Your task to perform on an android device: toggle improve location accuracy Image 0: 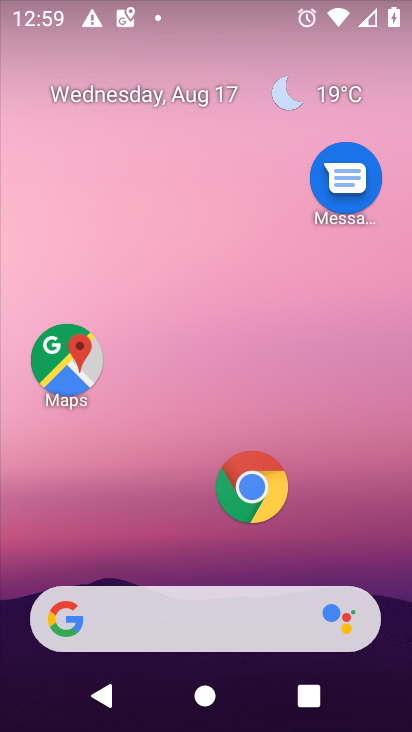
Step 0: drag from (169, 589) to (237, 33)
Your task to perform on an android device: toggle improve location accuracy Image 1: 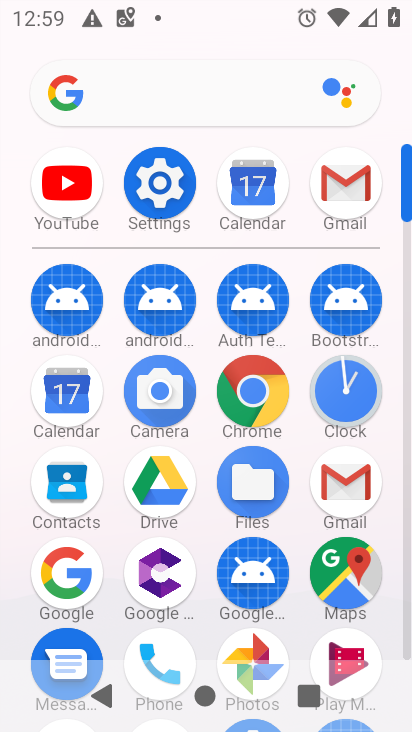
Step 1: click (158, 187)
Your task to perform on an android device: toggle improve location accuracy Image 2: 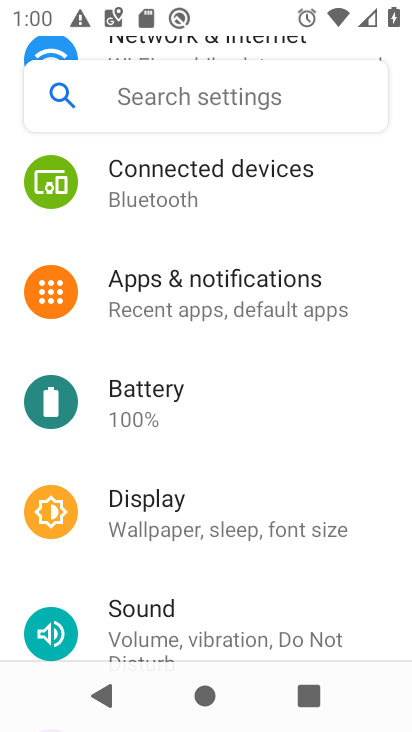
Step 2: drag from (206, 620) to (284, 125)
Your task to perform on an android device: toggle improve location accuracy Image 3: 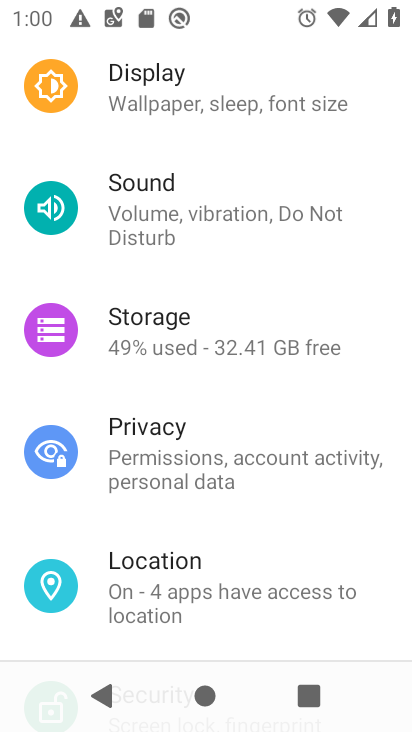
Step 3: click (170, 560)
Your task to perform on an android device: toggle improve location accuracy Image 4: 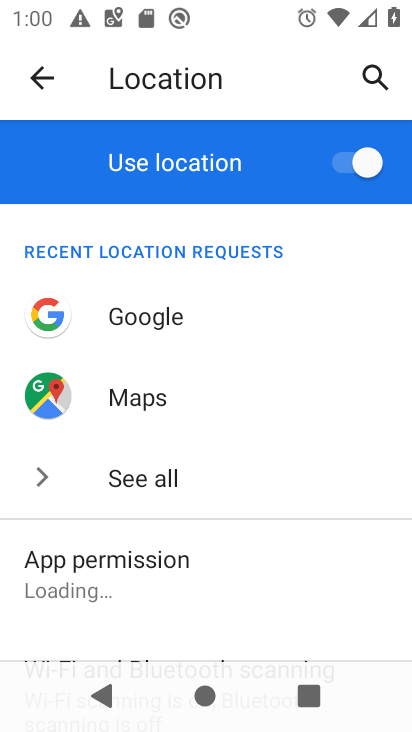
Step 4: drag from (197, 578) to (305, 122)
Your task to perform on an android device: toggle improve location accuracy Image 5: 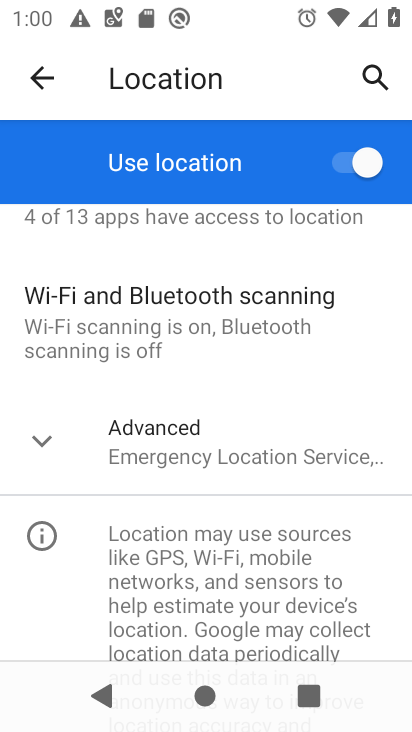
Step 5: click (194, 444)
Your task to perform on an android device: toggle improve location accuracy Image 6: 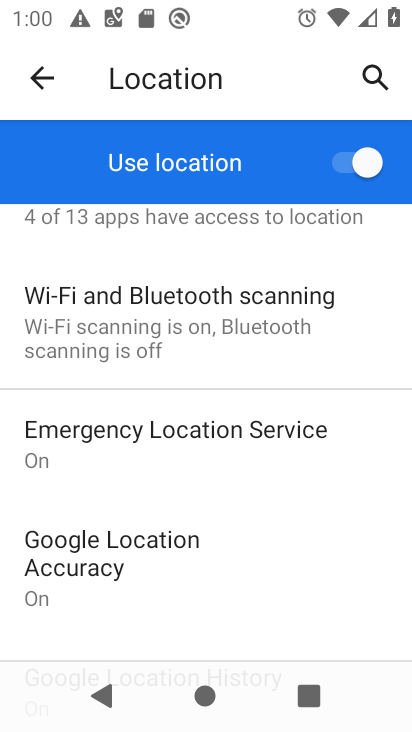
Step 6: click (128, 543)
Your task to perform on an android device: toggle improve location accuracy Image 7: 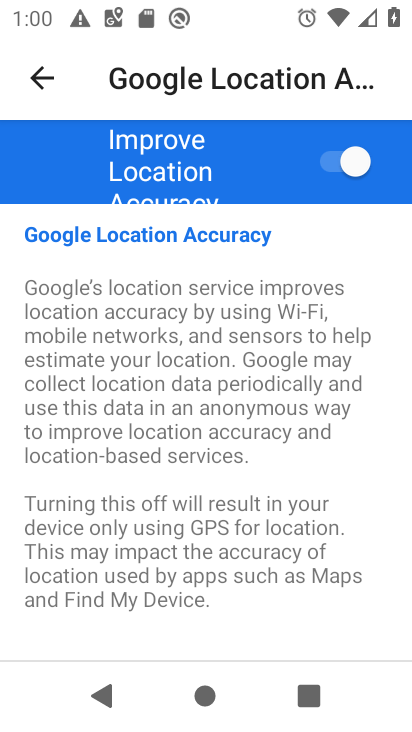
Step 7: click (359, 157)
Your task to perform on an android device: toggle improve location accuracy Image 8: 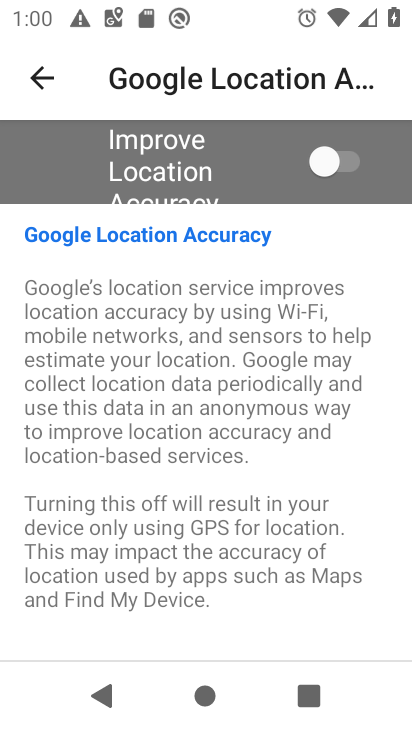
Step 8: task complete